Your task to perform on an android device: see tabs open on other devices in the chrome app Image 0: 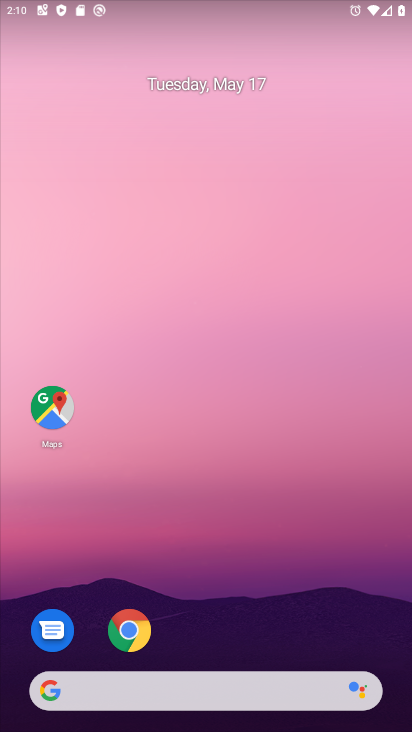
Step 0: drag from (261, 582) to (262, 89)
Your task to perform on an android device: see tabs open on other devices in the chrome app Image 1: 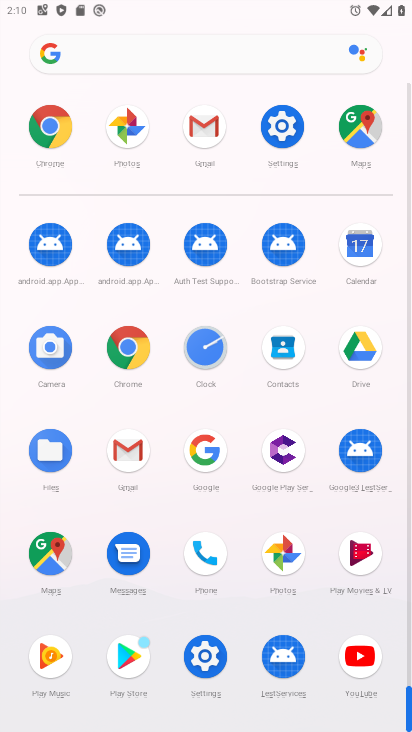
Step 1: click (130, 346)
Your task to perform on an android device: see tabs open on other devices in the chrome app Image 2: 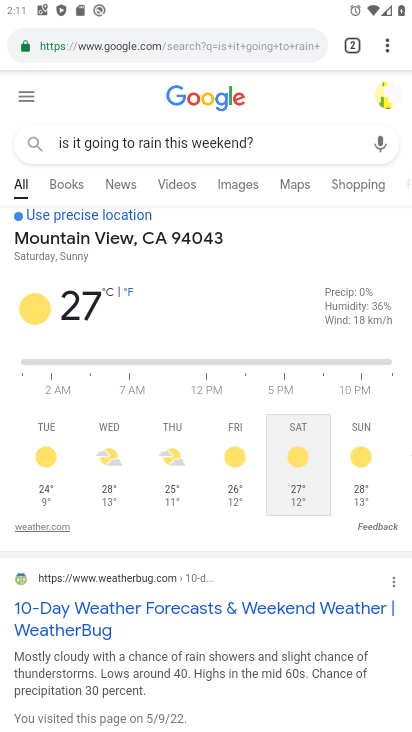
Step 2: click (354, 42)
Your task to perform on an android device: see tabs open on other devices in the chrome app Image 3: 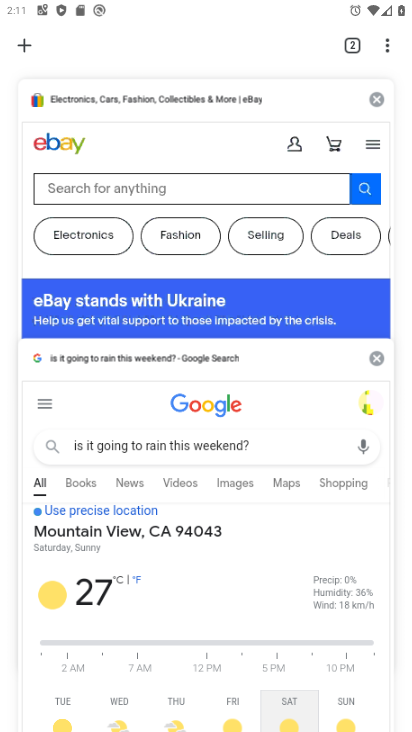
Step 3: task complete